Your task to perform on an android device: Open the calendar app, open the side menu, and click the "Day" option Image 0: 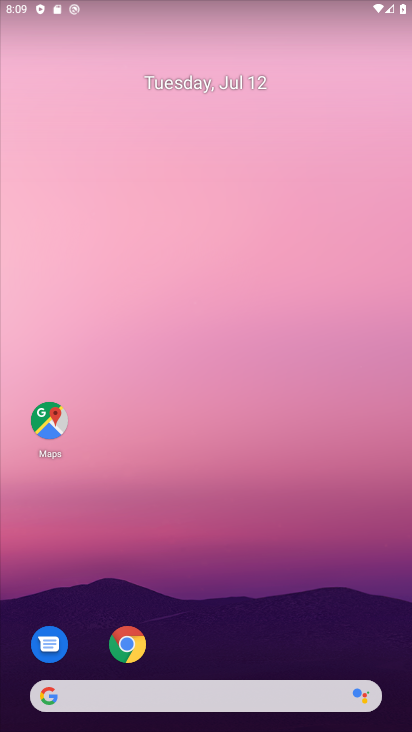
Step 0: drag from (217, 689) to (217, 246)
Your task to perform on an android device: Open the calendar app, open the side menu, and click the "Day" option Image 1: 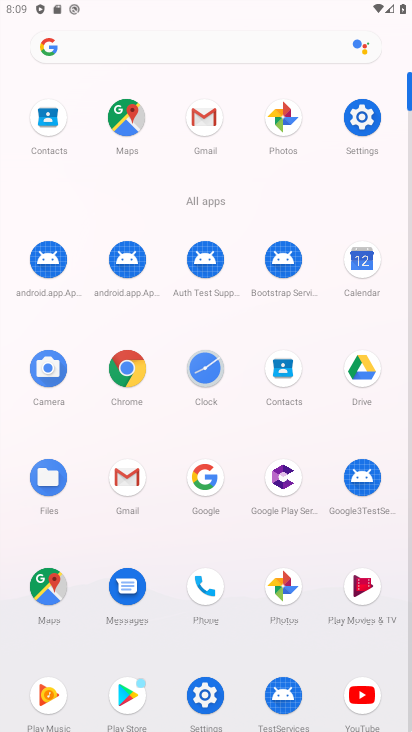
Step 1: click (363, 260)
Your task to perform on an android device: Open the calendar app, open the side menu, and click the "Day" option Image 2: 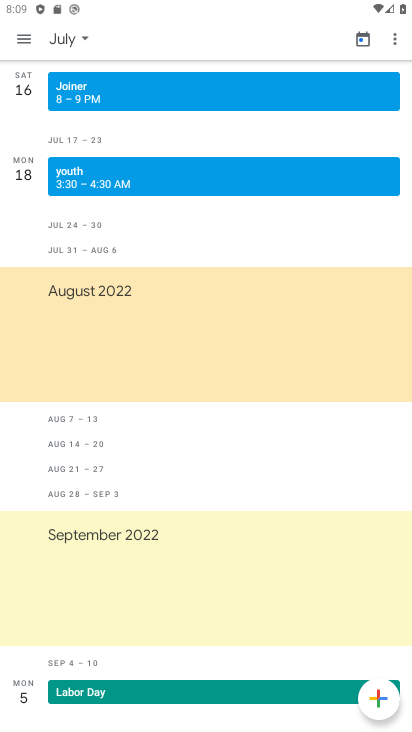
Step 2: click (22, 41)
Your task to perform on an android device: Open the calendar app, open the side menu, and click the "Day" option Image 3: 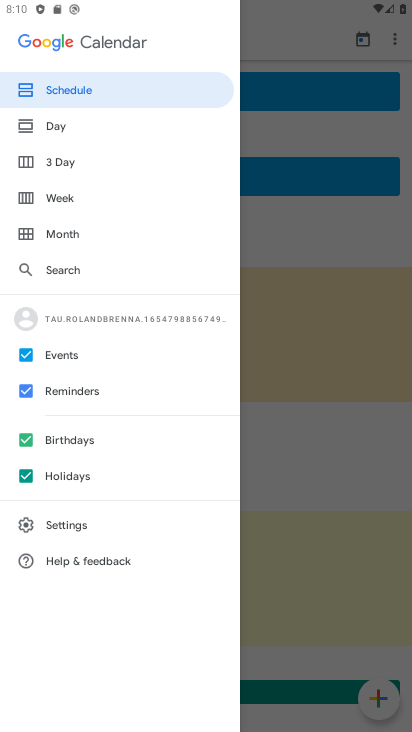
Step 3: click (30, 128)
Your task to perform on an android device: Open the calendar app, open the side menu, and click the "Day" option Image 4: 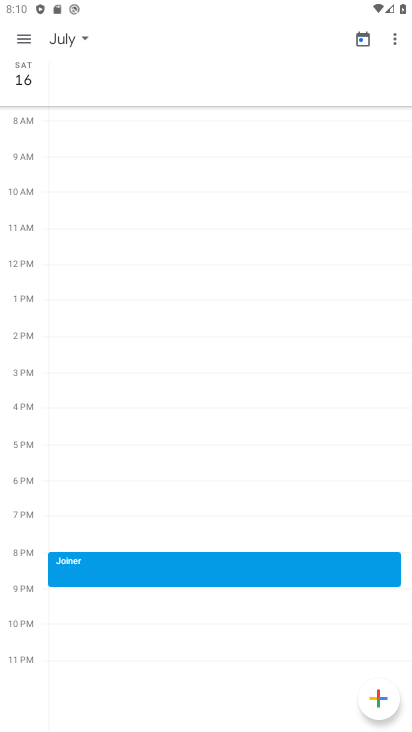
Step 4: task complete